Your task to perform on an android device: Open my contact list Image 0: 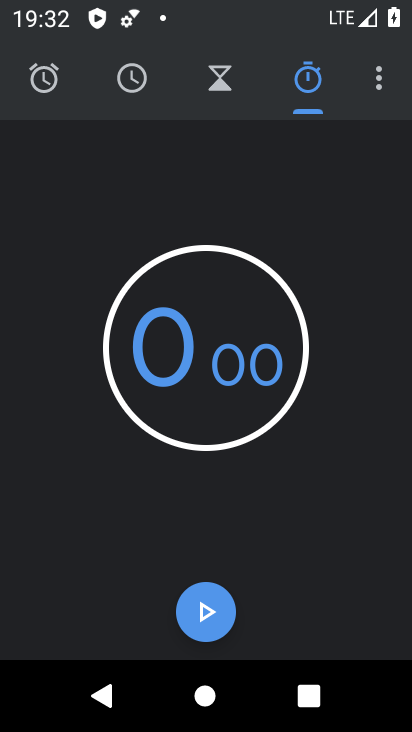
Step 0: press home button
Your task to perform on an android device: Open my contact list Image 1: 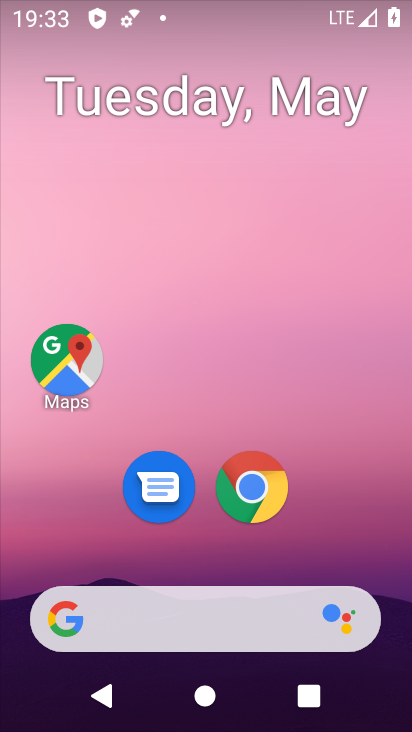
Step 1: drag from (328, 495) to (231, 85)
Your task to perform on an android device: Open my contact list Image 2: 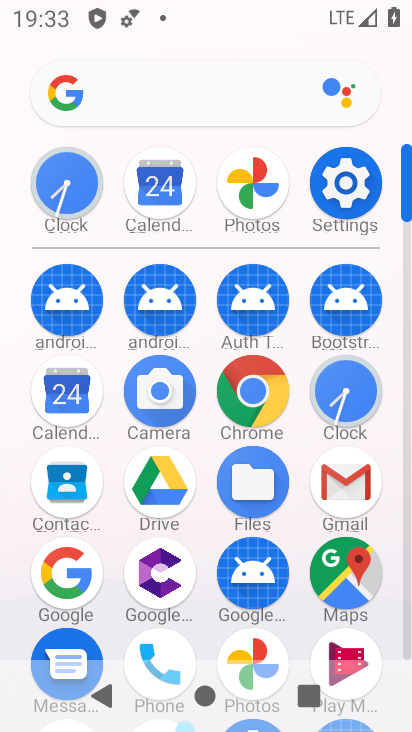
Step 2: click (45, 488)
Your task to perform on an android device: Open my contact list Image 3: 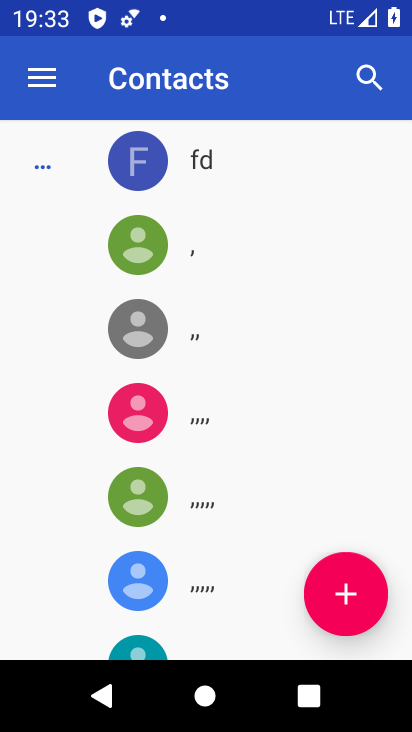
Step 3: click (45, 488)
Your task to perform on an android device: Open my contact list Image 4: 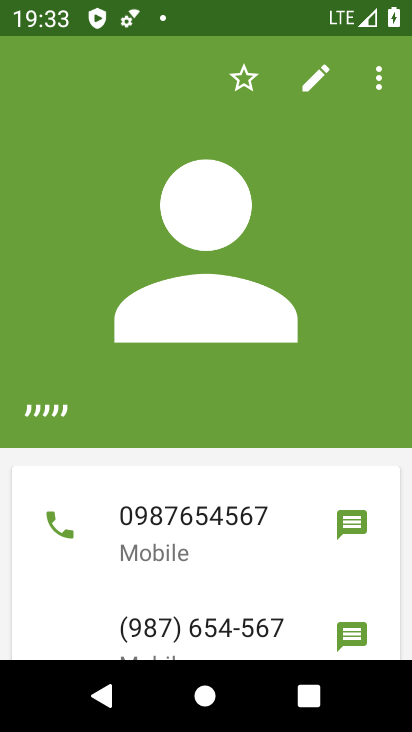
Step 4: task complete